Your task to perform on an android device: Search for the new nike air max shoes on Nike. Image 0: 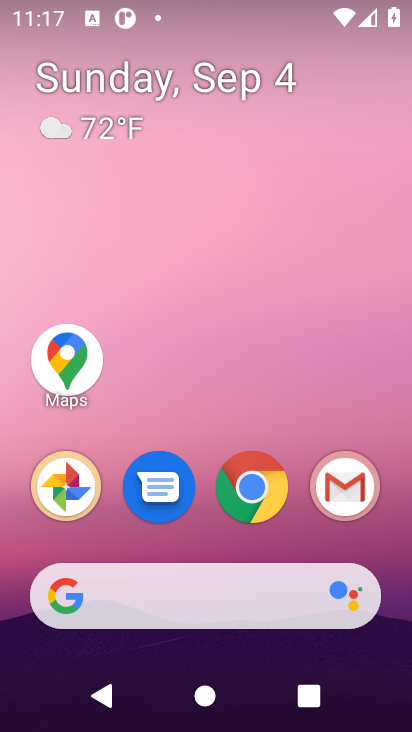
Step 0: task complete